Your task to perform on an android device: Search for custom wallets on etsy. Image 0: 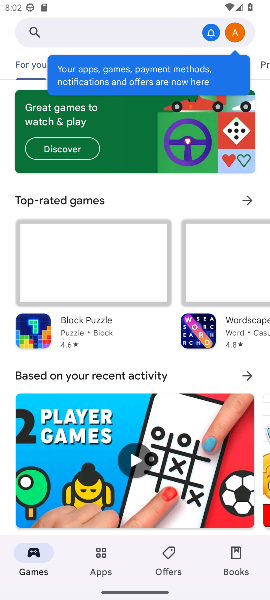
Step 0: press home button
Your task to perform on an android device: Search for custom wallets on etsy. Image 1: 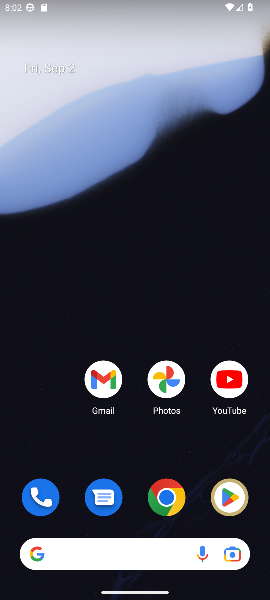
Step 1: drag from (134, 515) to (138, 13)
Your task to perform on an android device: Search for custom wallets on etsy. Image 2: 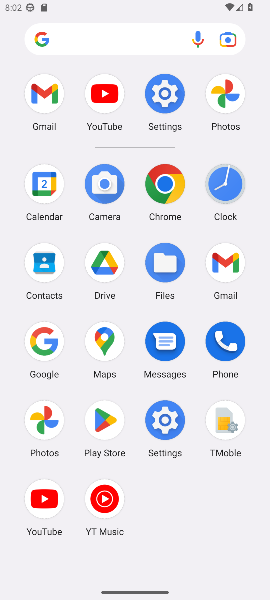
Step 2: click (40, 343)
Your task to perform on an android device: Search for custom wallets on etsy. Image 3: 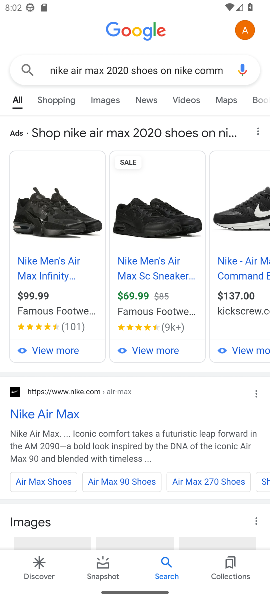
Step 3: click (220, 77)
Your task to perform on an android device: Search for custom wallets on etsy. Image 4: 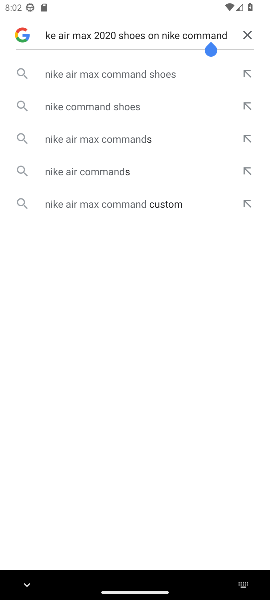
Step 4: click (245, 29)
Your task to perform on an android device: Search for custom wallets on etsy. Image 5: 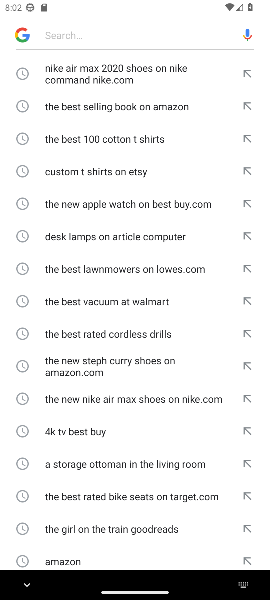
Step 5: type "custom wallets on etsy"
Your task to perform on an android device: Search for custom wallets on etsy. Image 6: 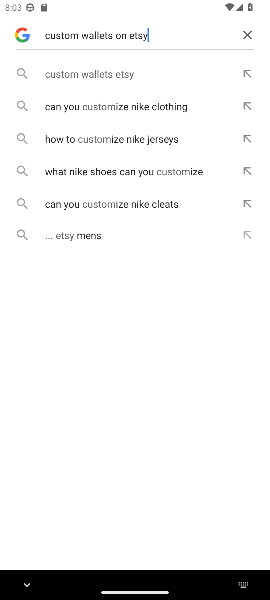
Step 6: click (109, 73)
Your task to perform on an android device: Search for custom wallets on etsy. Image 7: 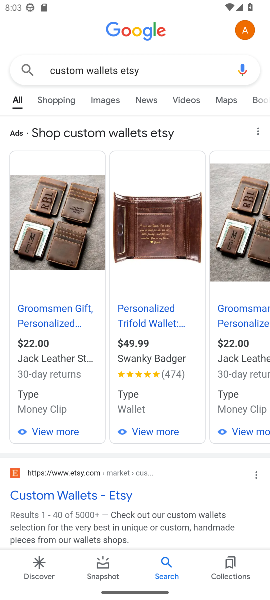
Step 7: task complete